Your task to perform on an android device: change the clock display to digital Image 0: 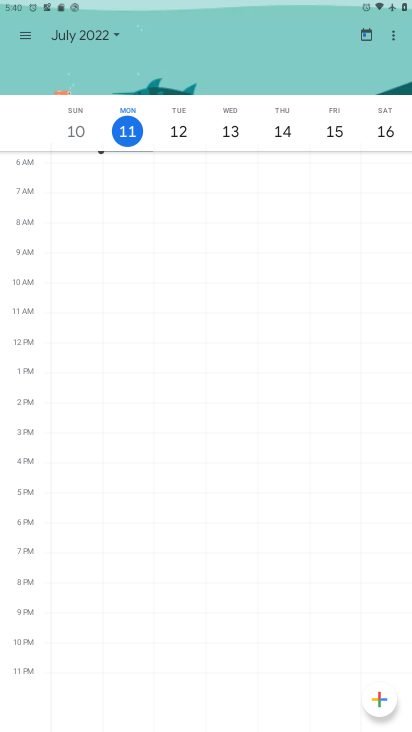
Step 0: press home button
Your task to perform on an android device: change the clock display to digital Image 1: 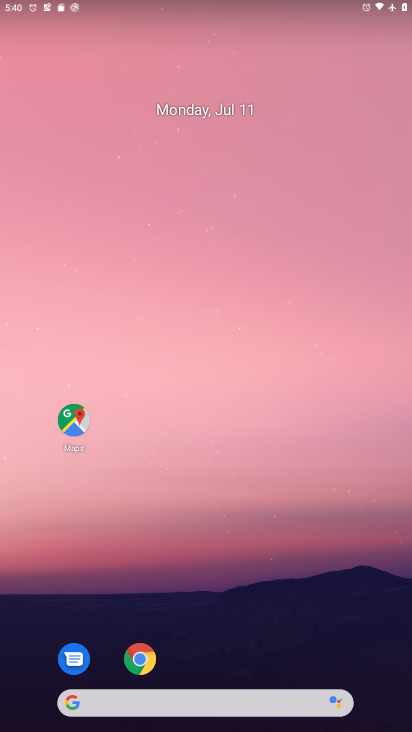
Step 1: drag from (379, 653) to (326, 204)
Your task to perform on an android device: change the clock display to digital Image 2: 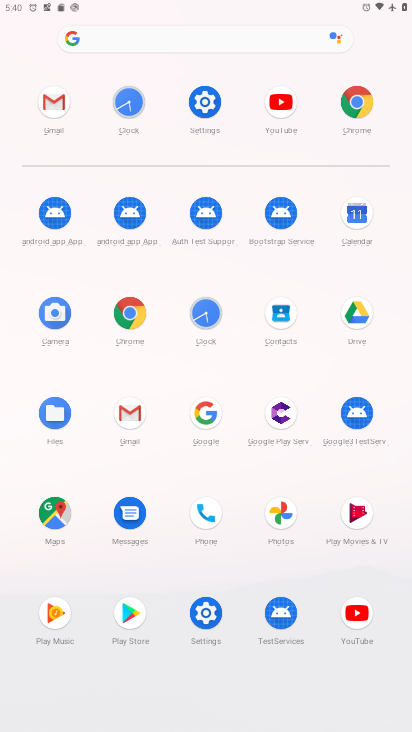
Step 2: click (205, 314)
Your task to perform on an android device: change the clock display to digital Image 3: 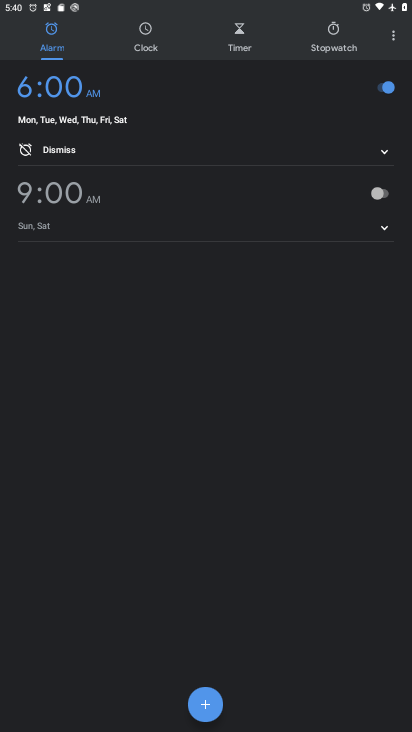
Step 3: click (389, 40)
Your task to perform on an android device: change the clock display to digital Image 4: 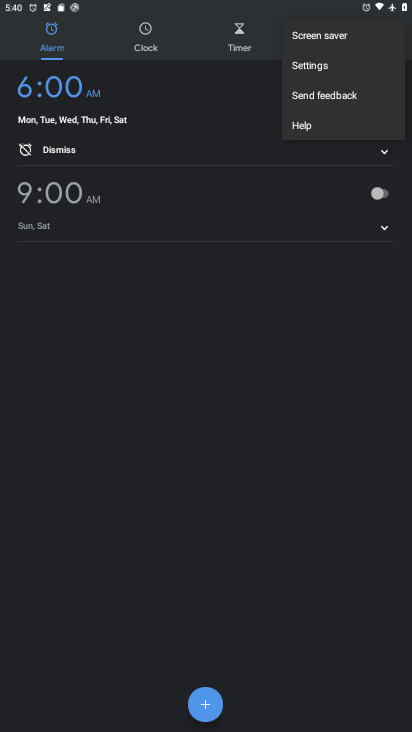
Step 4: click (316, 66)
Your task to perform on an android device: change the clock display to digital Image 5: 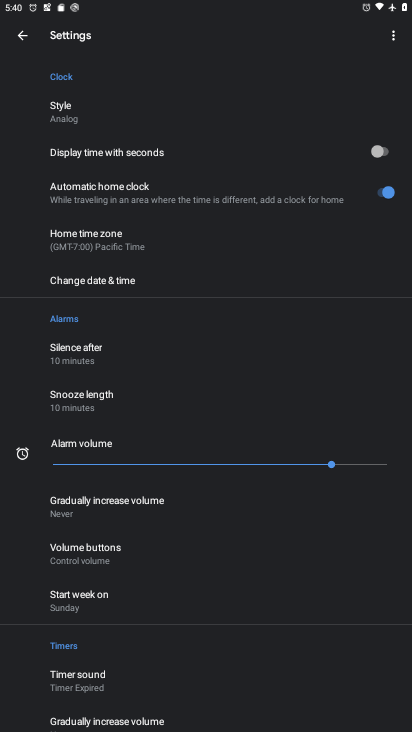
Step 5: click (79, 107)
Your task to perform on an android device: change the clock display to digital Image 6: 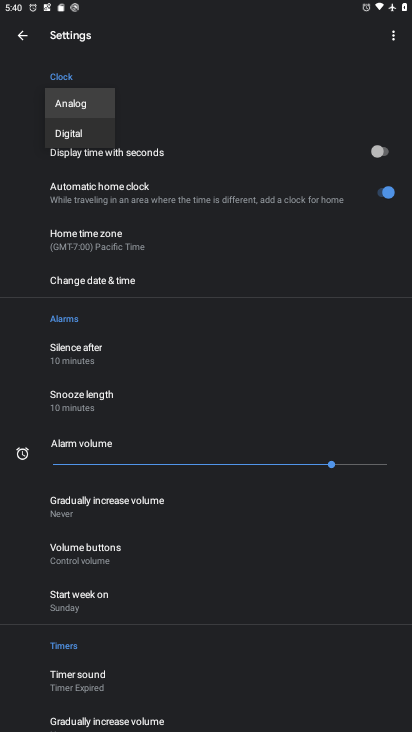
Step 6: click (75, 136)
Your task to perform on an android device: change the clock display to digital Image 7: 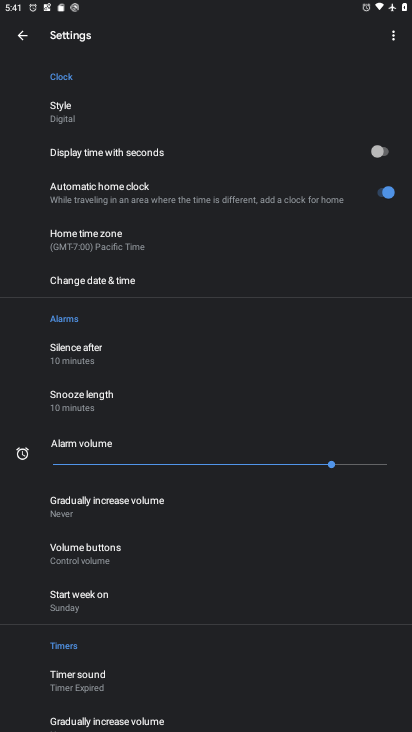
Step 7: task complete